Your task to perform on an android device: Open eBay Image 0: 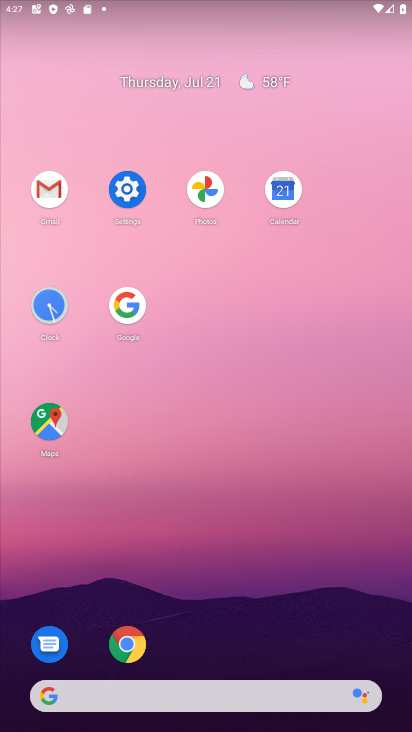
Step 0: click (131, 654)
Your task to perform on an android device: Open eBay Image 1: 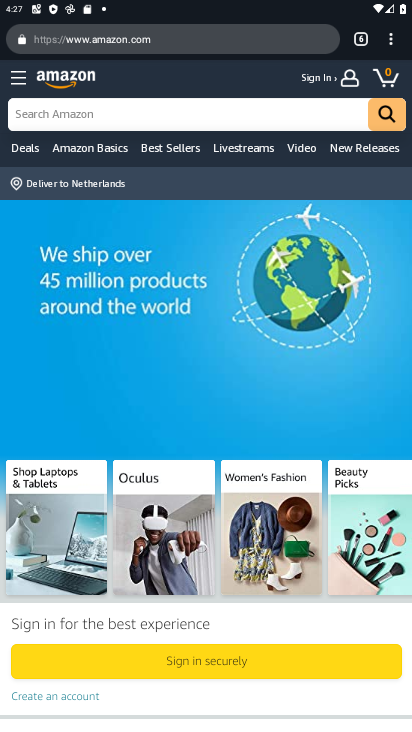
Step 1: click (356, 22)
Your task to perform on an android device: Open eBay Image 2: 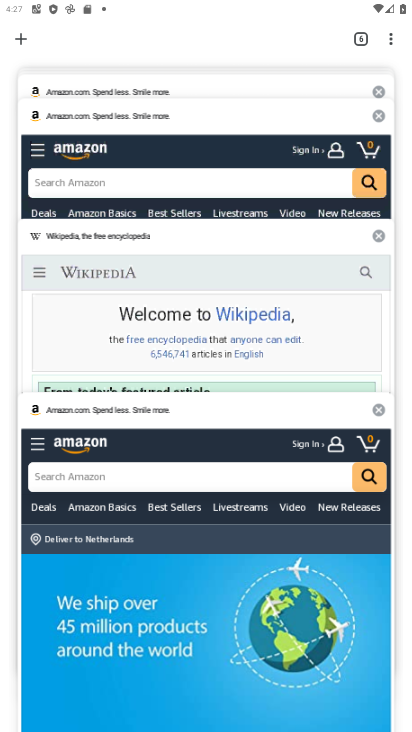
Step 2: drag from (167, 219) to (225, 528)
Your task to perform on an android device: Open eBay Image 3: 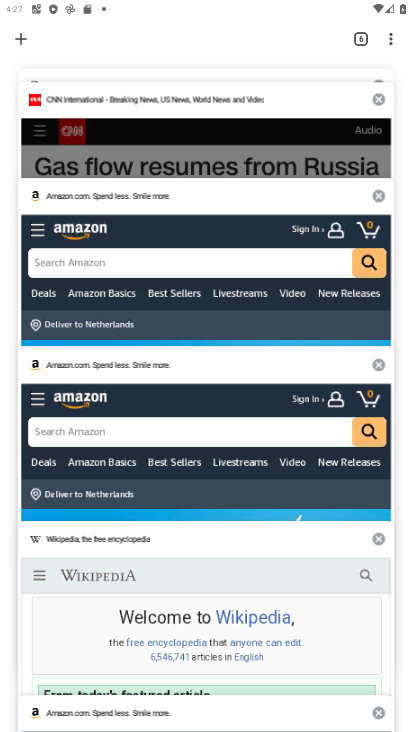
Step 3: drag from (133, 154) to (176, 512)
Your task to perform on an android device: Open eBay Image 4: 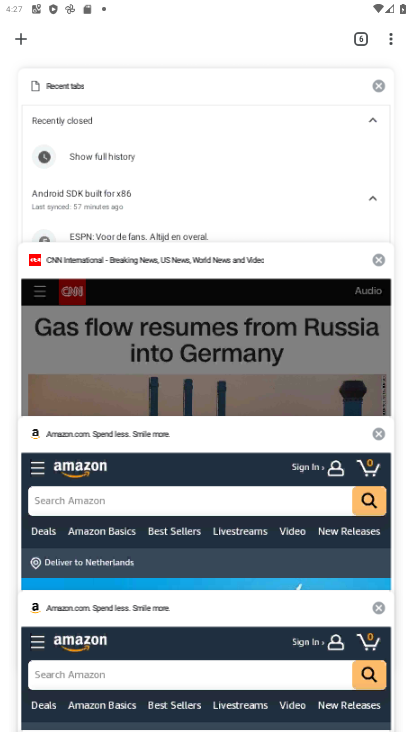
Step 4: click (24, 42)
Your task to perform on an android device: Open eBay Image 5: 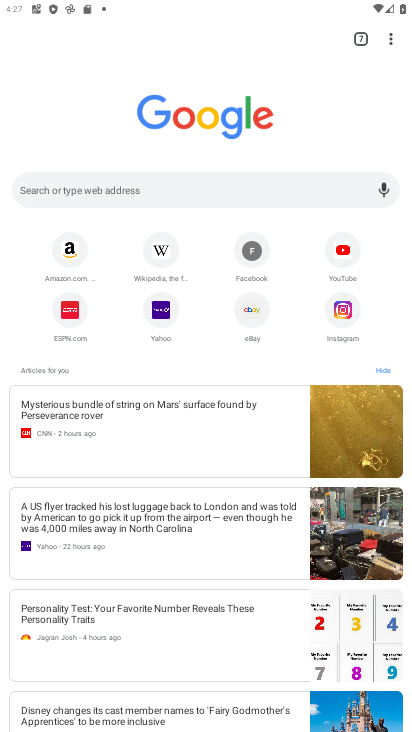
Step 5: click (237, 307)
Your task to perform on an android device: Open eBay Image 6: 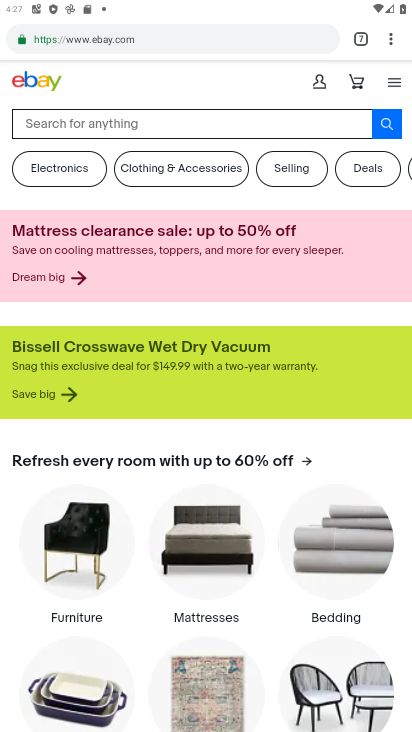
Step 6: task complete